Your task to perform on an android device: turn off wifi Image 0: 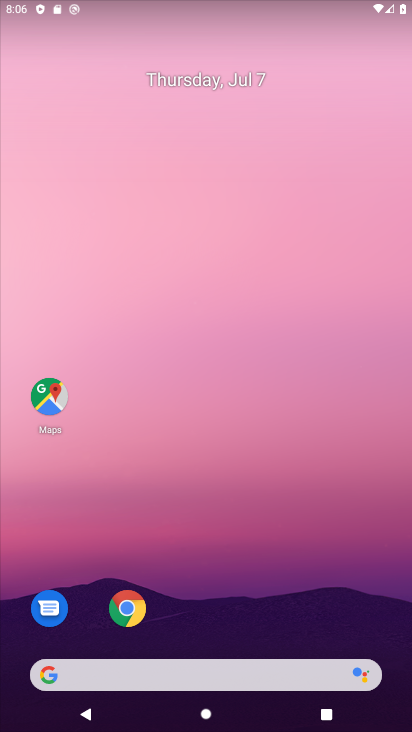
Step 0: drag from (346, 596) to (364, 68)
Your task to perform on an android device: turn off wifi Image 1: 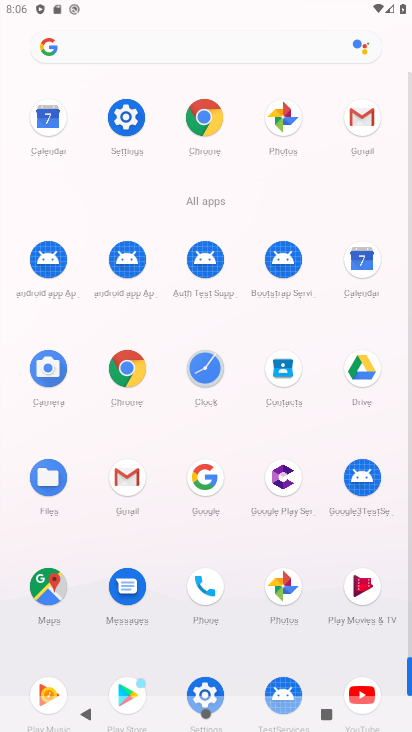
Step 1: click (125, 123)
Your task to perform on an android device: turn off wifi Image 2: 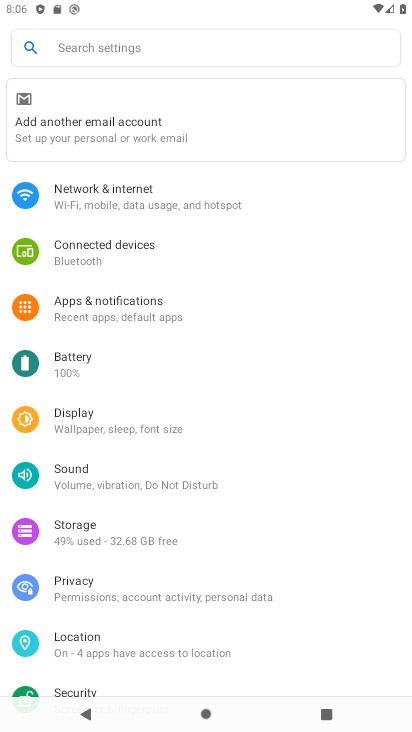
Step 2: click (157, 192)
Your task to perform on an android device: turn off wifi Image 3: 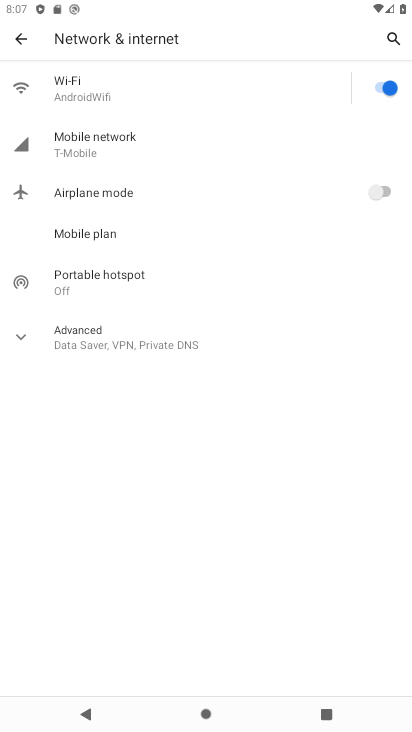
Step 3: click (384, 94)
Your task to perform on an android device: turn off wifi Image 4: 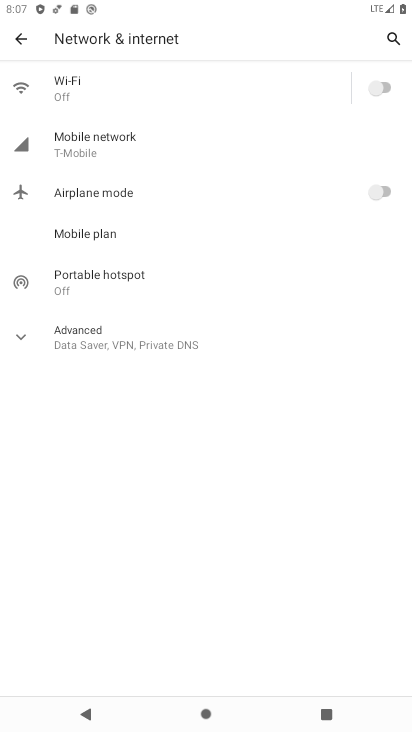
Step 4: task complete